Your task to perform on an android device: Open Google Image 0: 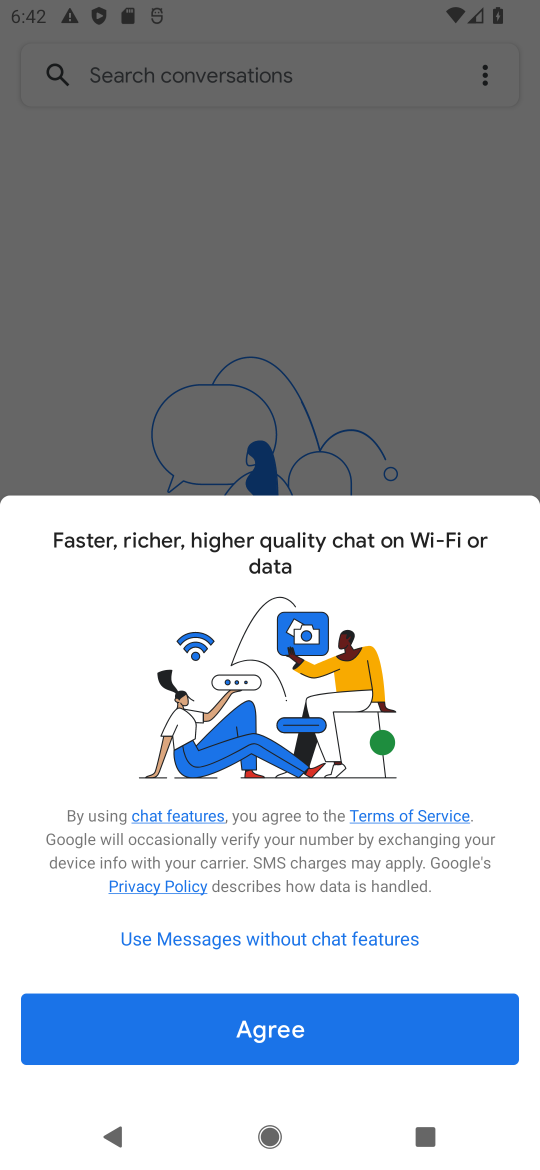
Step 0: press home button
Your task to perform on an android device: Open Google Image 1: 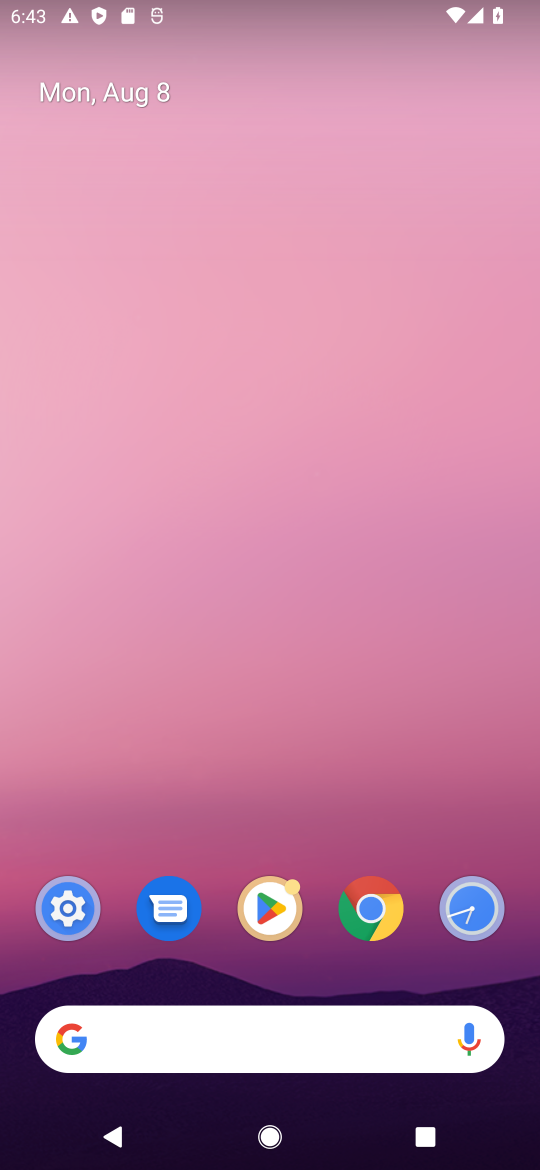
Step 1: click (291, 1039)
Your task to perform on an android device: Open Google Image 2: 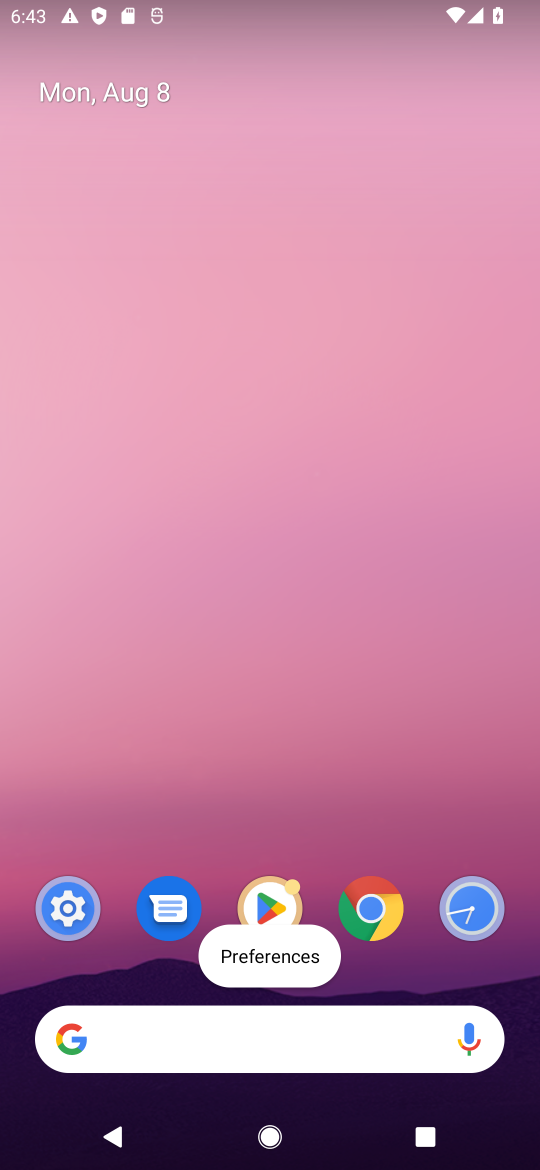
Step 2: click (291, 1039)
Your task to perform on an android device: Open Google Image 3: 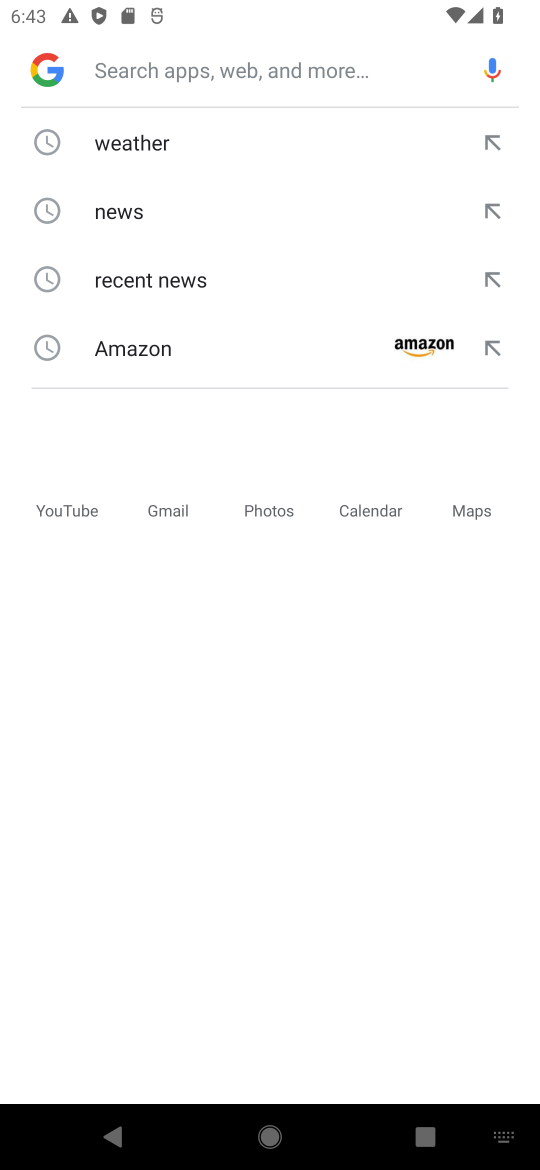
Step 3: task complete